Your task to perform on an android device: Go to display settings Image 0: 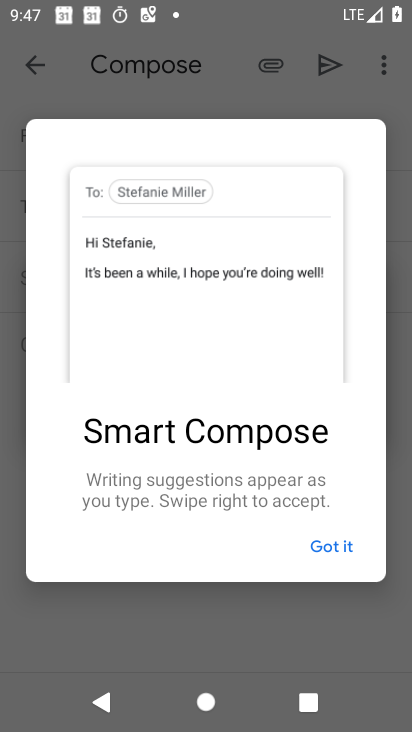
Step 0: press home button
Your task to perform on an android device: Go to display settings Image 1: 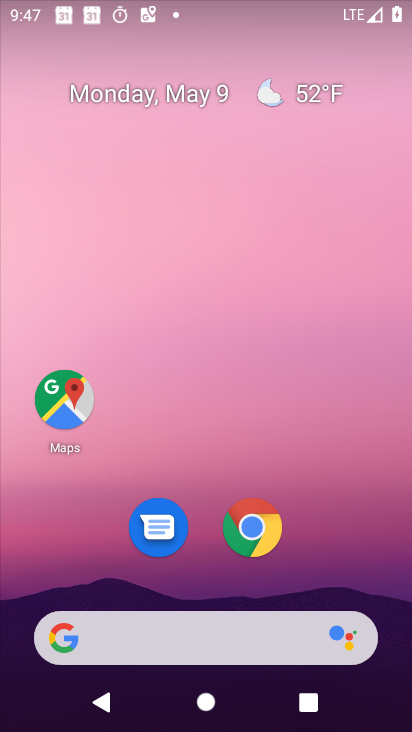
Step 1: drag from (334, 533) to (302, 153)
Your task to perform on an android device: Go to display settings Image 2: 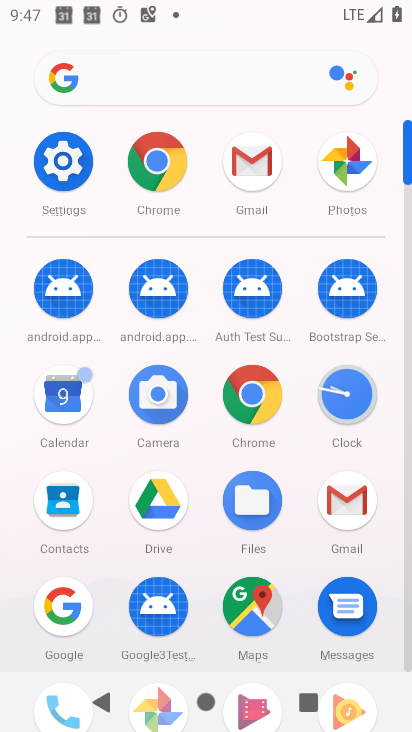
Step 2: click (47, 150)
Your task to perform on an android device: Go to display settings Image 3: 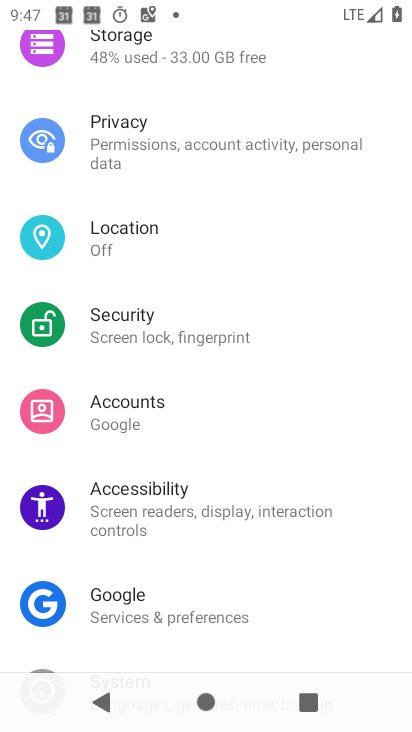
Step 3: drag from (170, 205) to (170, 458)
Your task to perform on an android device: Go to display settings Image 4: 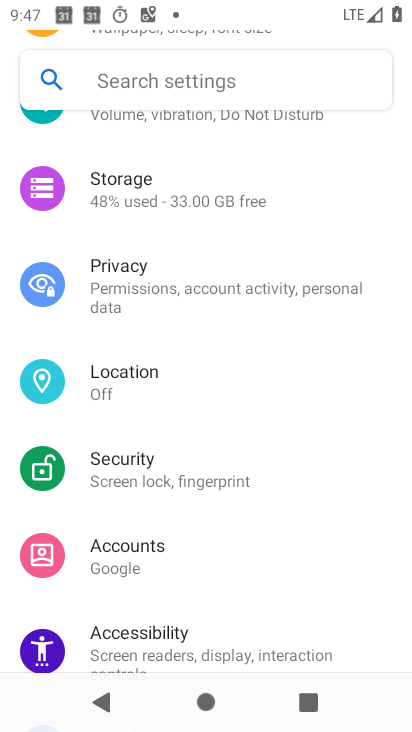
Step 4: drag from (184, 215) to (193, 522)
Your task to perform on an android device: Go to display settings Image 5: 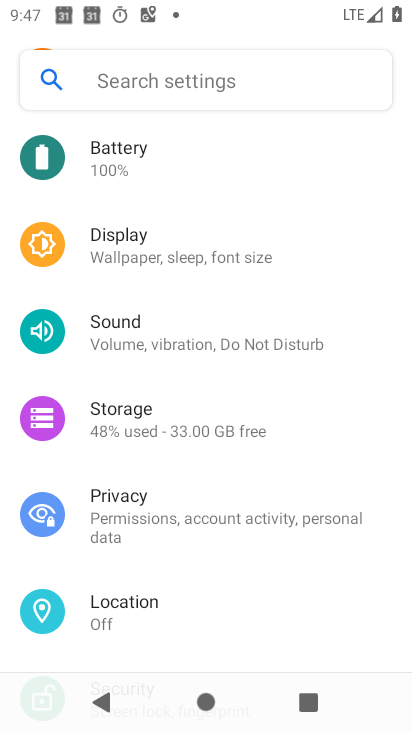
Step 5: click (130, 257)
Your task to perform on an android device: Go to display settings Image 6: 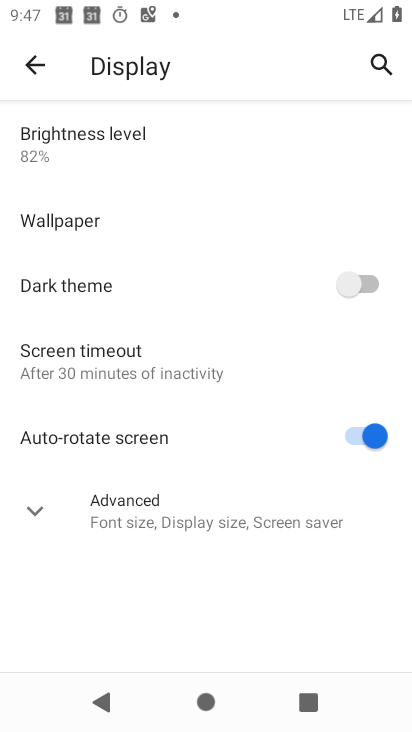
Step 6: click (29, 499)
Your task to perform on an android device: Go to display settings Image 7: 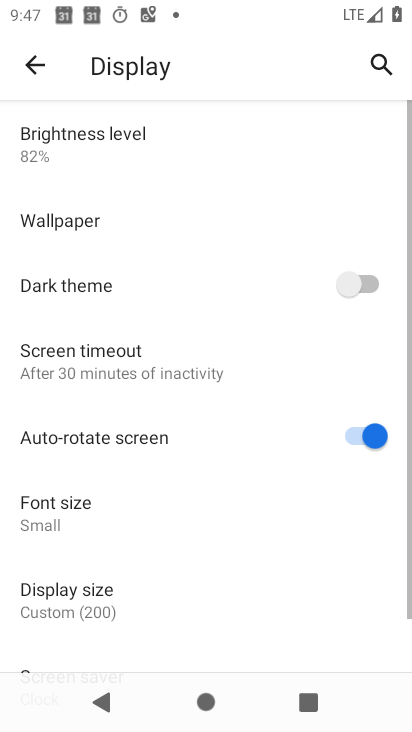
Step 7: task complete